Your task to perform on an android device: Go to battery settings Image 0: 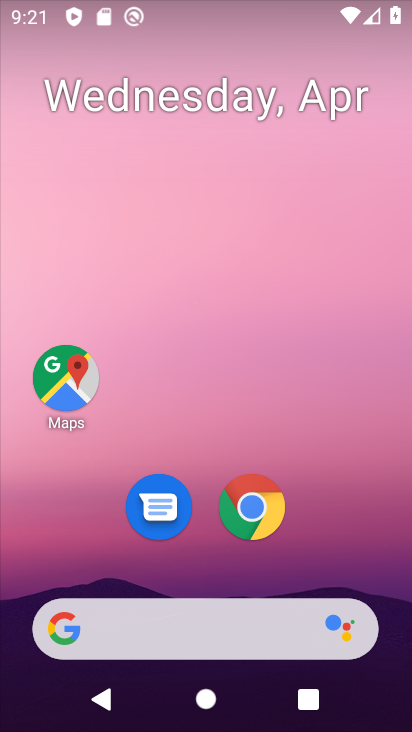
Step 0: drag from (315, 560) to (313, 223)
Your task to perform on an android device: Go to battery settings Image 1: 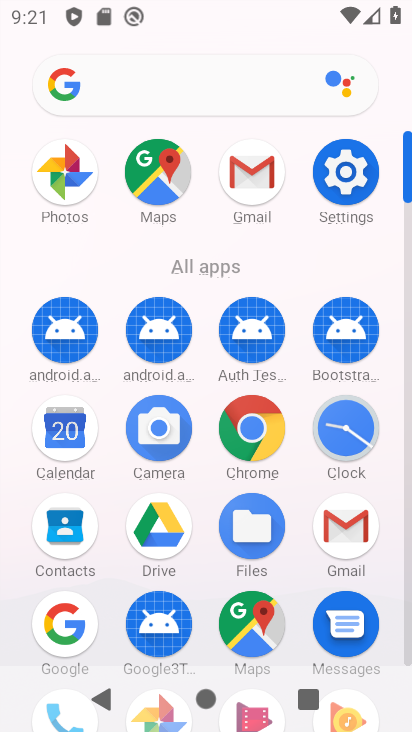
Step 1: click (352, 194)
Your task to perform on an android device: Go to battery settings Image 2: 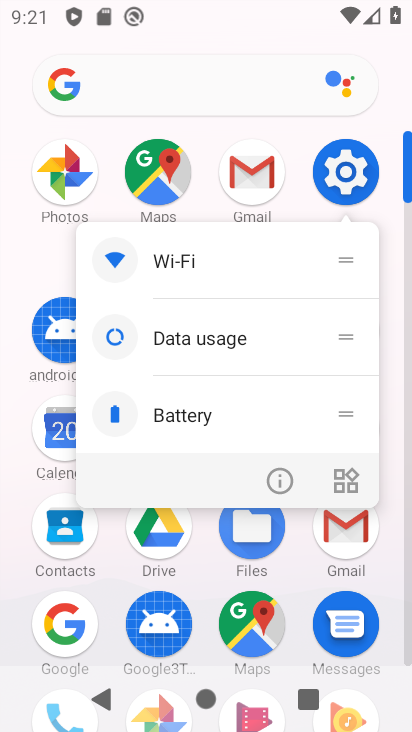
Step 2: click (352, 194)
Your task to perform on an android device: Go to battery settings Image 3: 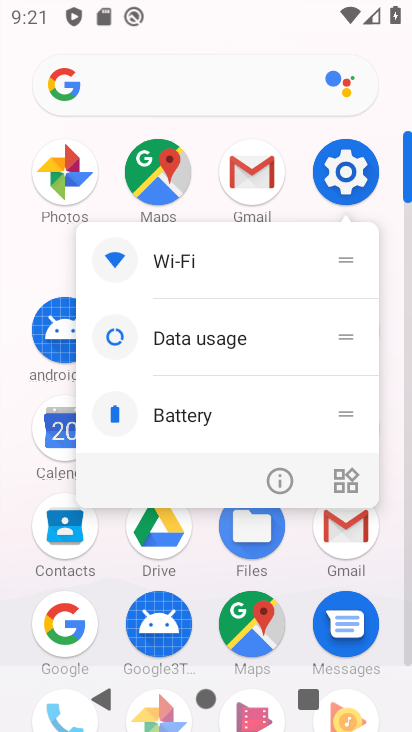
Step 3: click (359, 174)
Your task to perform on an android device: Go to battery settings Image 4: 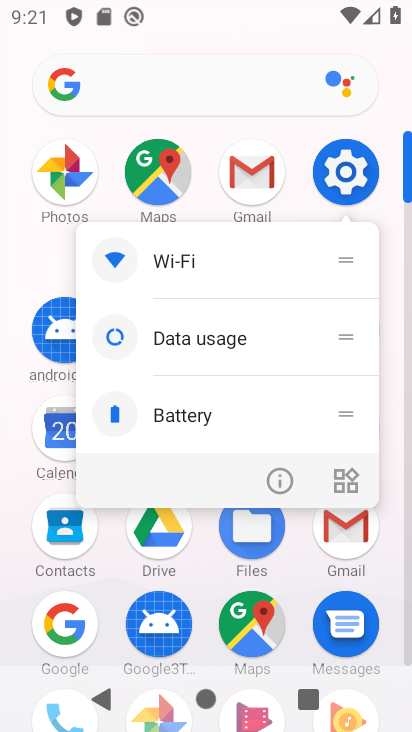
Step 4: click (343, 162)
Your task to perform on an android device: Go to battery settings Image 5: 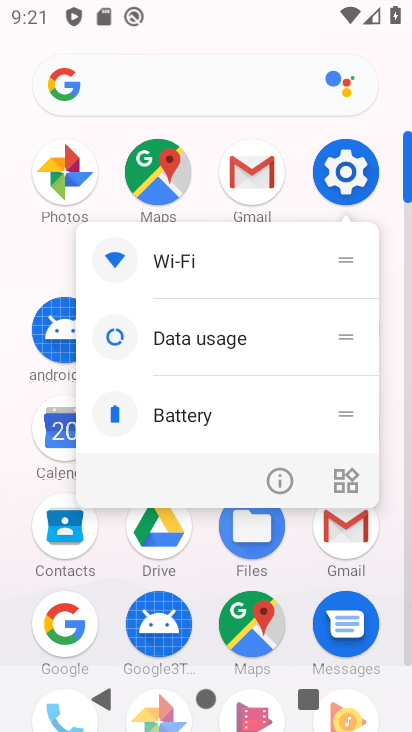
Step 5: click (339, 167)
Your task to perform on an android device: Go to battery settings Image 6: 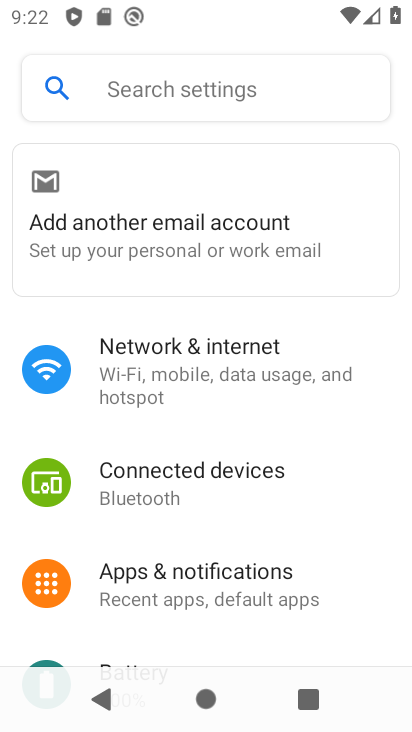
Step 6: drag from (234, 577) to (250, 276)
Your task to perform on an android device: Go to battery settings Image 7: 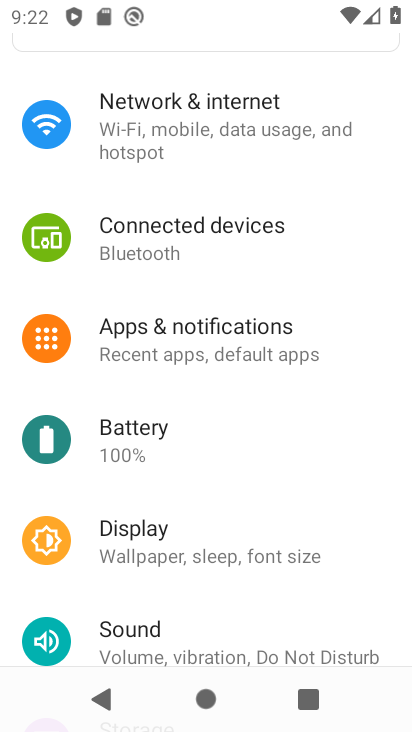
Step 7: click (128, 458)
Your task to perform on an android device: Go to battery settings Image 8: 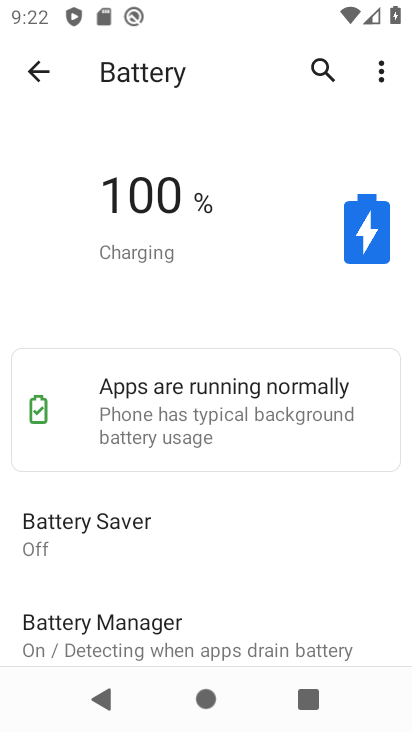
Step 8: task complete